Your task to perform on an android device: Open the Play Movies app and select the watchlist tab. Image 0: 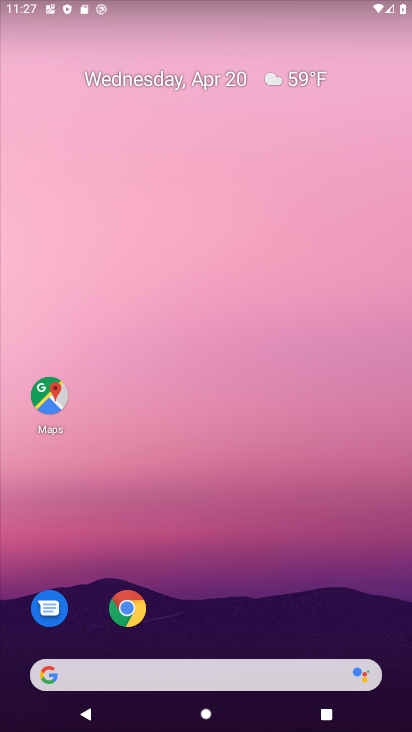
Step 0: drag from (210, 598) to (224, 159)
Your task to perform on an android device: Open the Play Movies app and select the watchlist tab. Image 1: 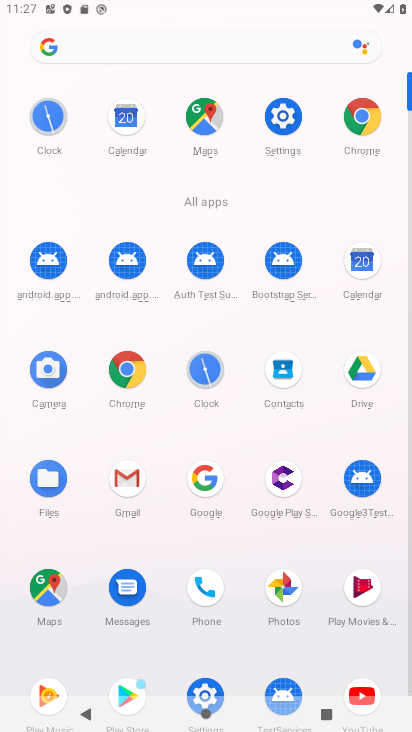
Step 1: click (363, 586)
Your task to perform on an android device: Open the Play Movies app and select the watchlist tab. Image 2: 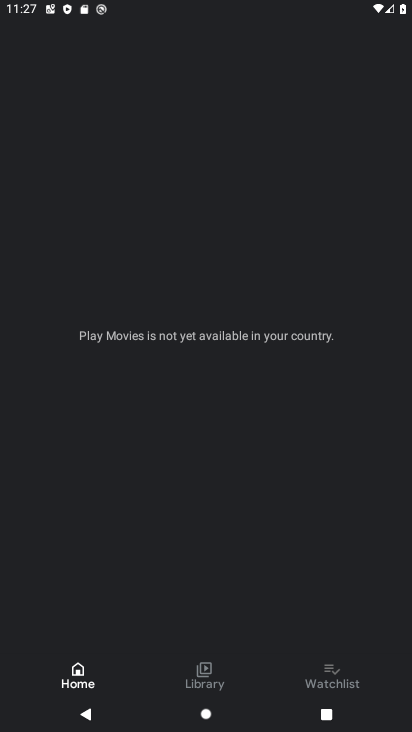
Step 2: click (317, 679)
Your task to perform on an android device: Open the Play Movies app and select the watchlist tab. Image 3: 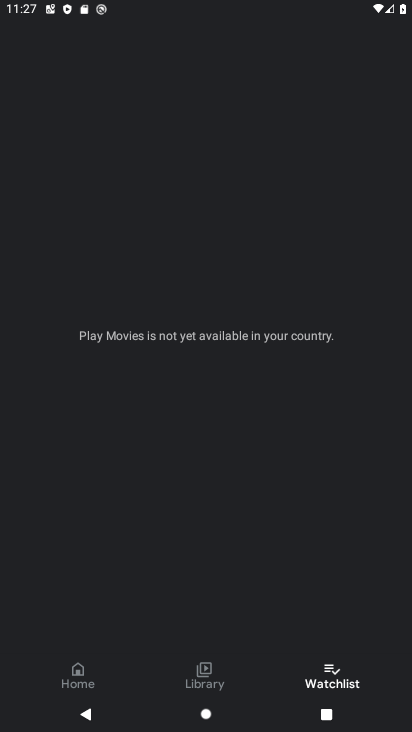
Step 3: task complete